Your task to perform on an android device: Open Yahoo.com Image 0: 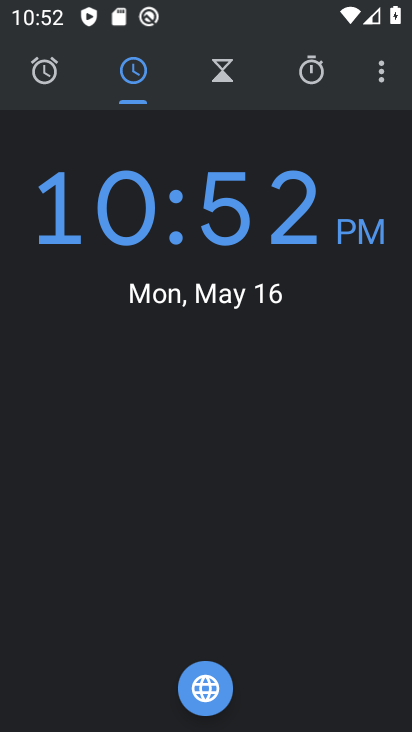
Step 0: press home button
Your task to perform on an android device: Open Yahoo.com Image 1: 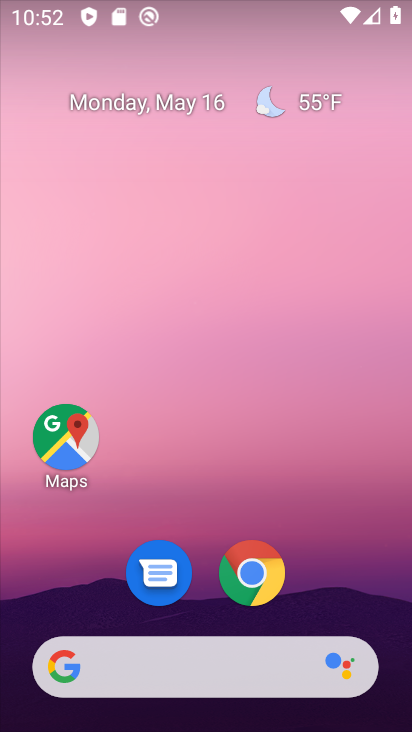
Step 1: click (239, 566)
Your task to perform on an android device: Open Yahoo.com Image 2: 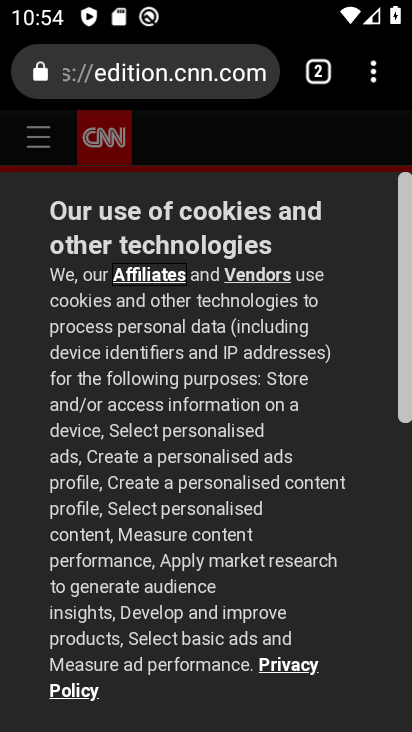
Step 2: click (301, 68)
Your task to perform on an android device: Open Yahoo.com Image 3: 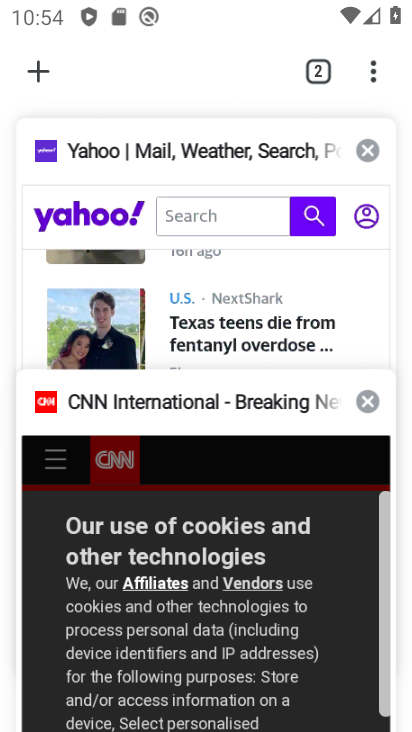
Step 3: click (127, 301)
Your task to perform on an android device: Open Yahoo.com Image 4: 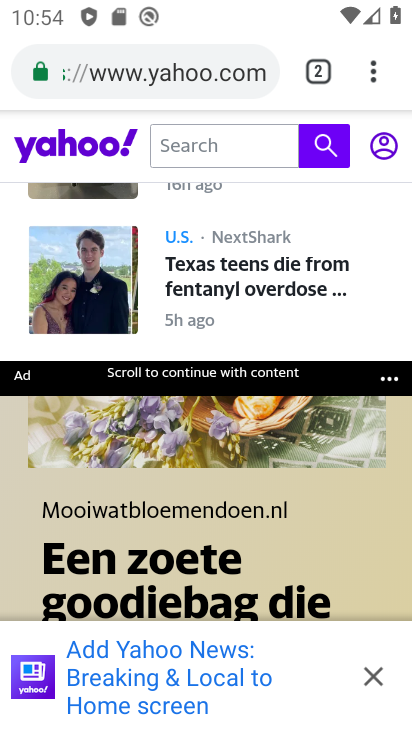
Step 4: task complete